Your task to perform on an android device: Open calendar and show me the second week of next month Image 0: 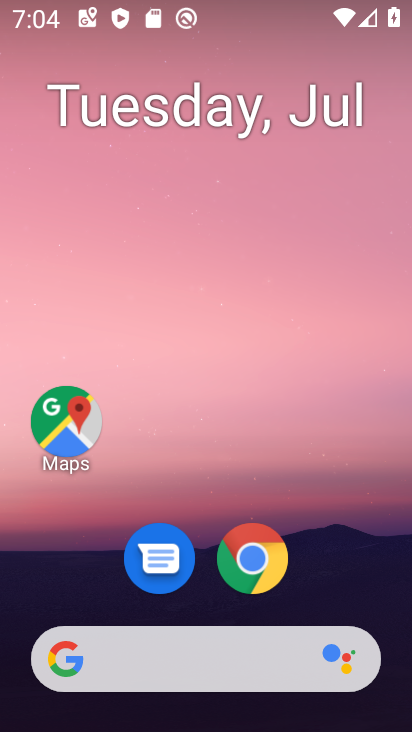
Step 0: drag from (84, 549) to (193, 82)
Your task to perform on an android device: Open calendar and show me the second week of next month Image 1: 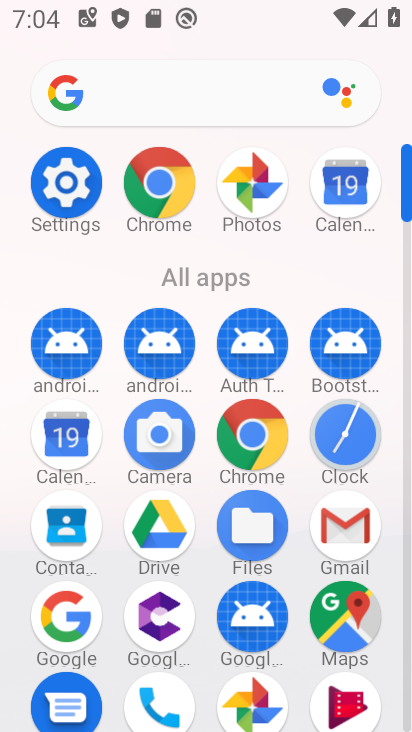
Step 1: click (60, 439)
Your task to perform on an android device: Open calendar and show me the second week of next month Image 2: 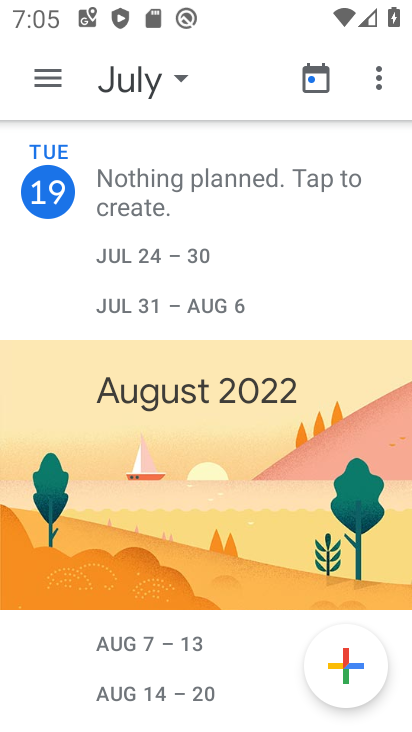
Step 2: click (173, 76)
Your task to perform on an android device: Open calendar and show me the second week of next month Image 3: 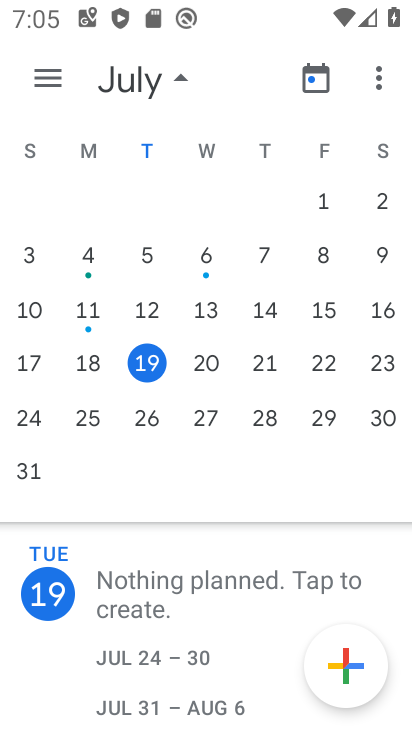
Step 3: drag from (377, 325) to (50, 307)
Your task to perform on an android device: Open calendar and show me the second week of next month Image 4: 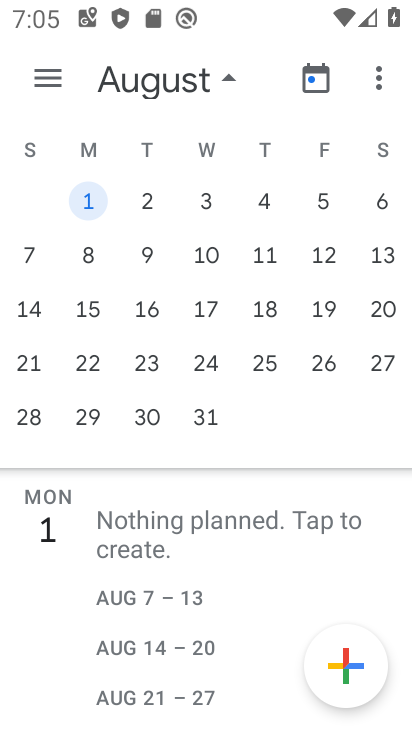
Step 4: click (80, 255)
Your task to perform on an android device: Open calendar and show me the second week of next month Image 5: 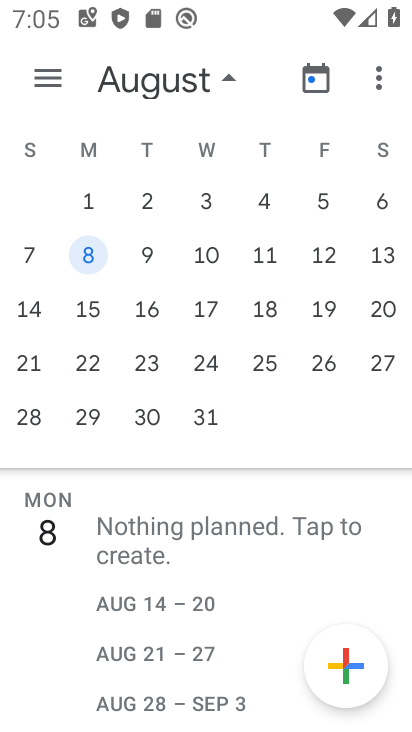
Step 5: task complete